Your task to perform on an android device: Open location settings Image 0: 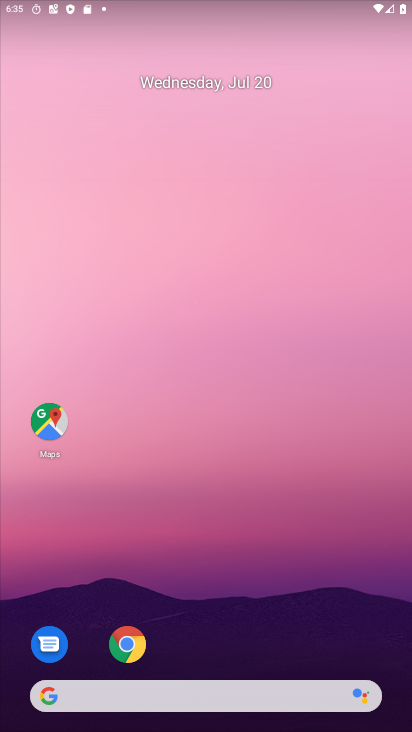
Step 0: press home button
Your task to perform on an android device: Open location settings Image 1: 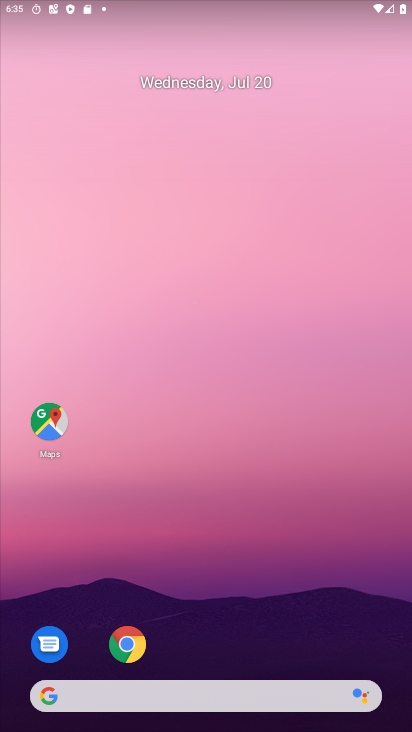
Step 1: drag from (305, 654) to (235, 292)
Your task to perform on an android device: Open location settings Image 2: 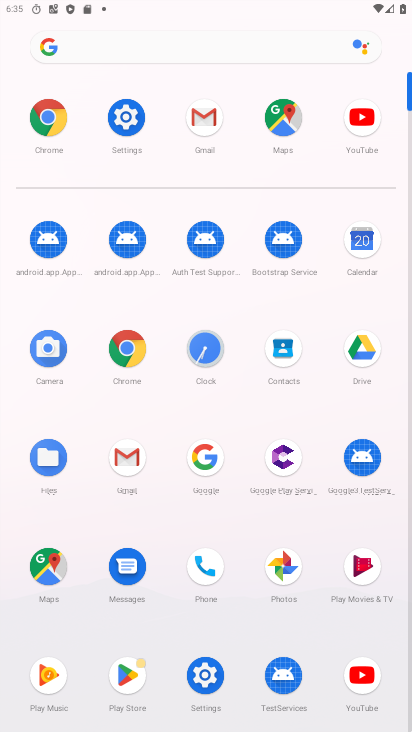
Step 2: click (129, 127)
Your task to perform on an android device: Open location settings Image 3: 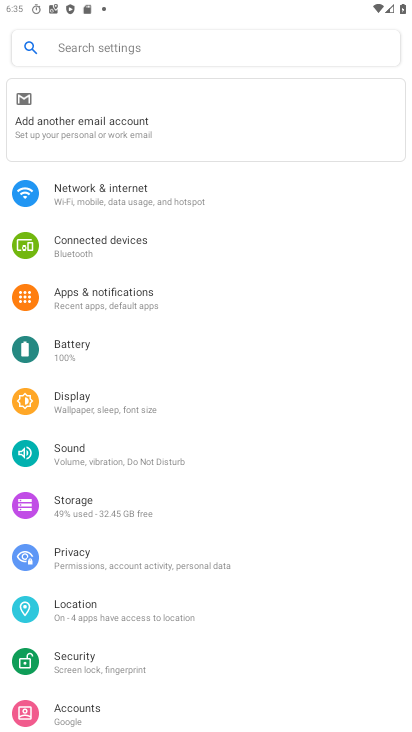
Step 3: click (106, 611)
Your task to perform on an android device: Open location settings Image 4: 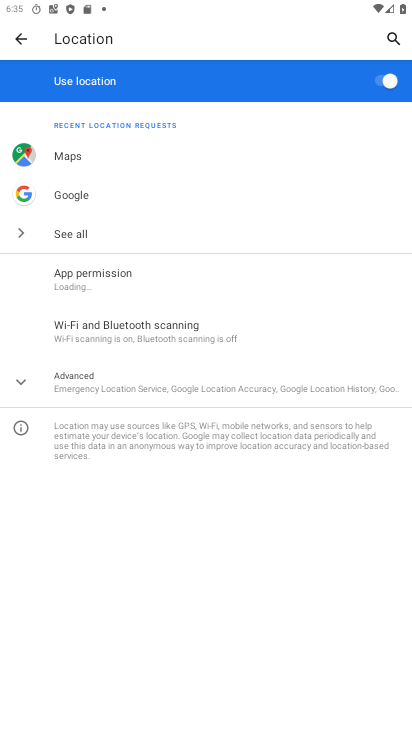
Step 4: task complete